Your task to perform on an android device: What's on my calendar today? Image 0: 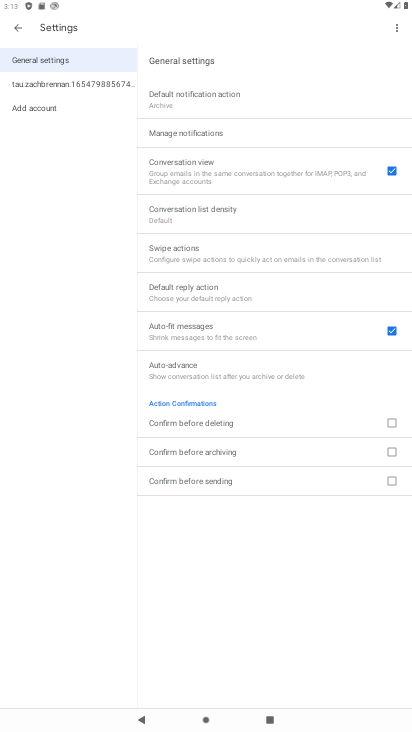
Step 0: press home button
Your task to perform on an android device: What's on my calendar today? Image 1: 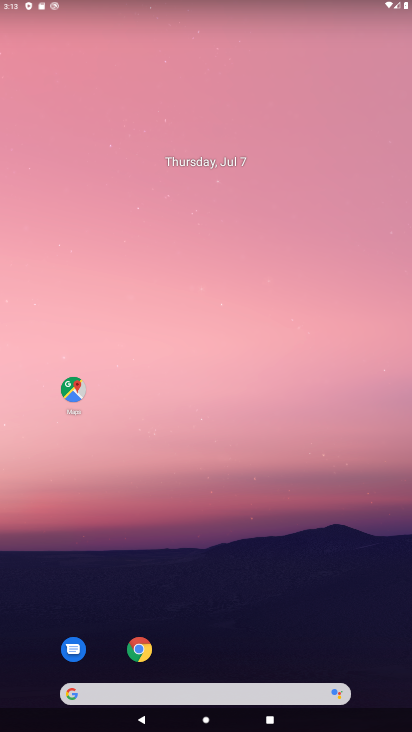
Step 1: drag from (195, 657) to (261, 214)
Your task to perform on an android device: What's on my calendar today? Image 2: 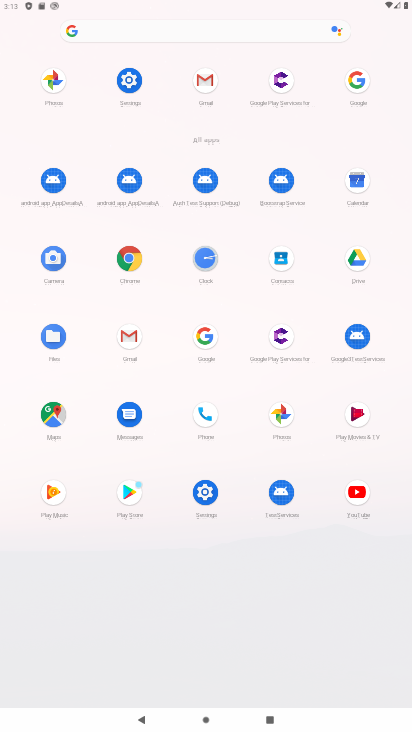
Step 2: click (363, 195)
Your task to perform on an android device: What's on my calendar today? Image 3: 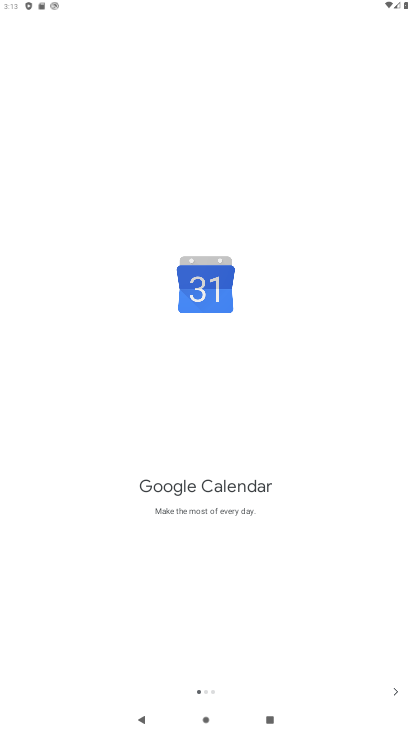
Step 3: click (395, 692)
Your task to perform on an android device: What's on my calendar today? Image 4: 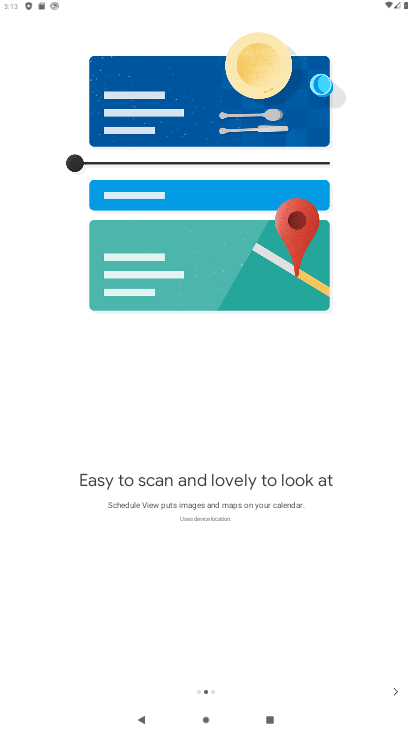
Step 4: click (390, 706)
Your task to perform on an android device: What's on my calendar today? Image 5: 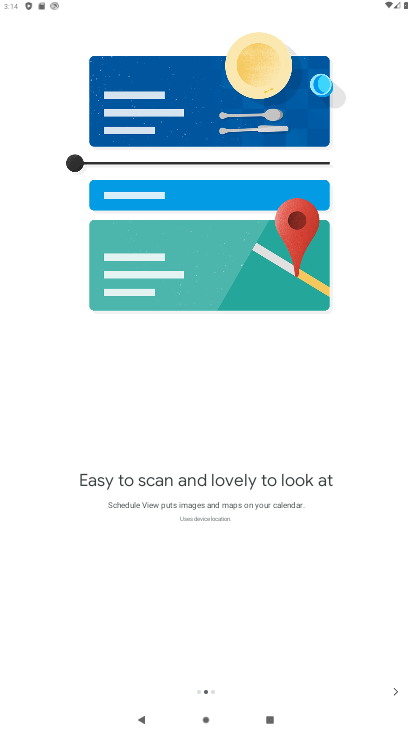
Step 5: click (394, 695)
Your task to perform on an android device: What's on my calendar today? Image 6: 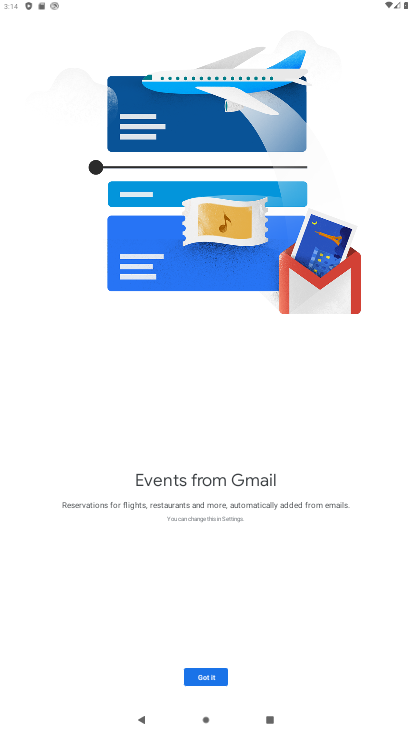
Step 6: click (217, 673)
Your task to perform on an android device: What's on my calendar today? Image 7: 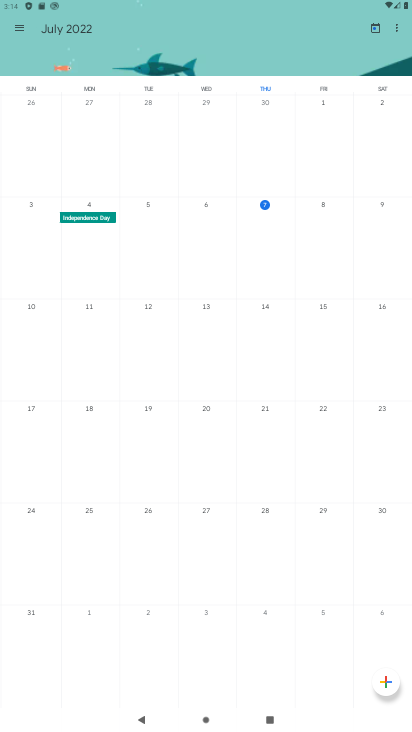
Step 7: task complete